Your task to perform on an android device: When is my next appointment? Image 0: 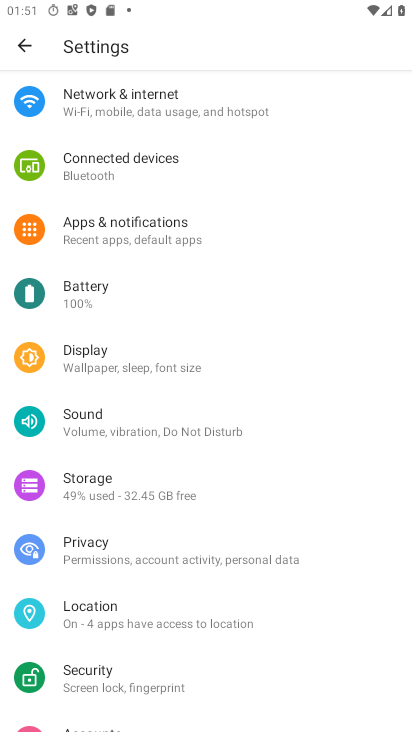
Step 0: press home button
Your task to perform on an android device: When is my next appointment? Image 1: 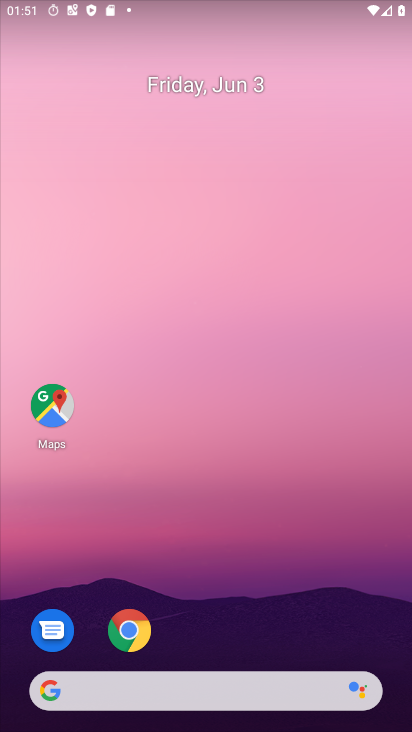
Step 1: drag from (281, 644) to (227, 156)
Your task to perform on an android device: When is my next appointment? Image 2: 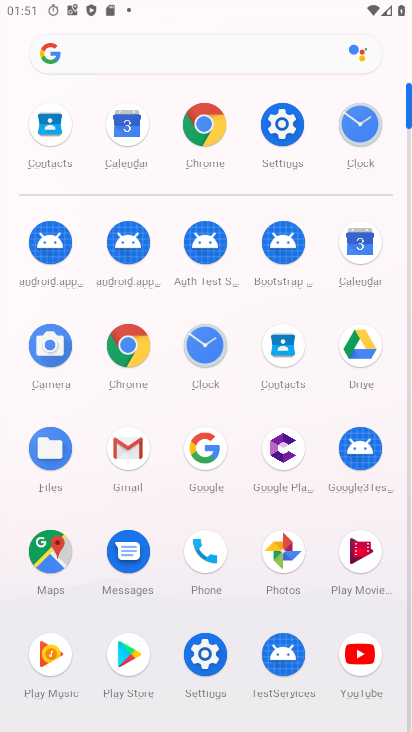
Step 2: click (359, 244)
Your task to perform on an android device: When is my next appointment? Image 3: 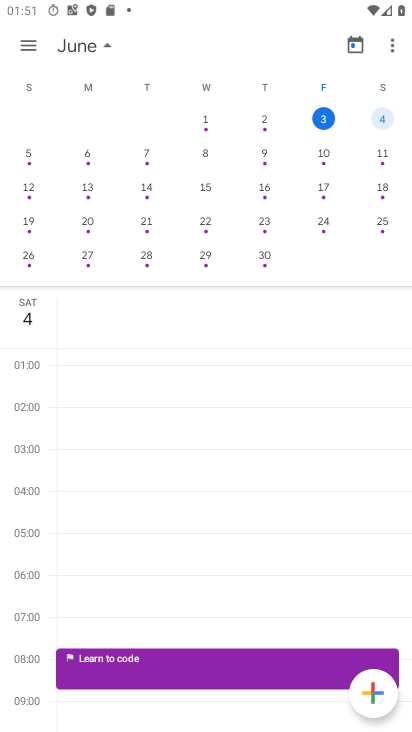
Step 3: click (29, 36)
Your task to perform on an android device: When is my next appointment? Image 4: 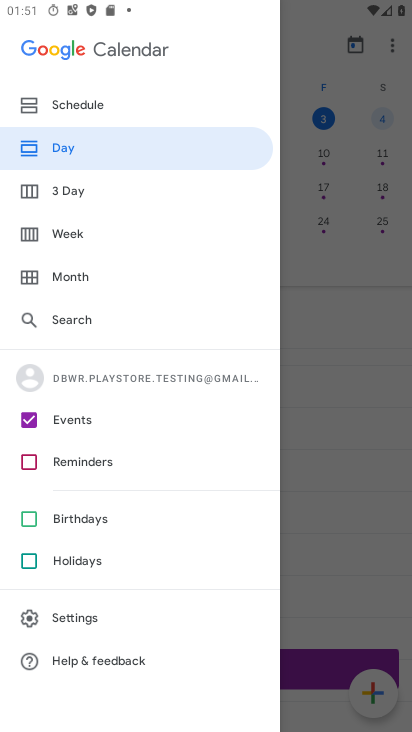
Step 4: click (94, 108)
Your task to perform on an android device: When is my next appointment? Image 5: 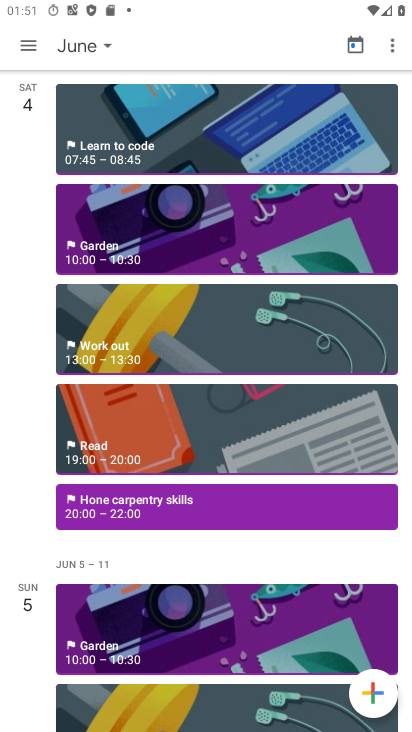
Step 5: task complete